Your task to perform on an android device: Open calendar and show me the third week of next month Image 0: 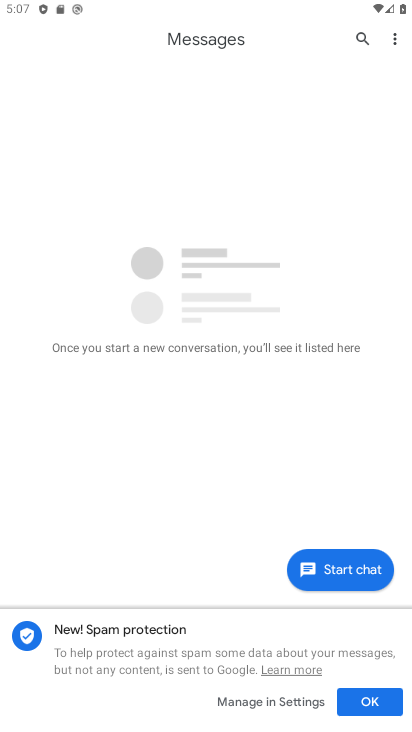
Step 0: press home button
Your task to perform on an android device: Open calendar and show me the third week of next month Image 1: 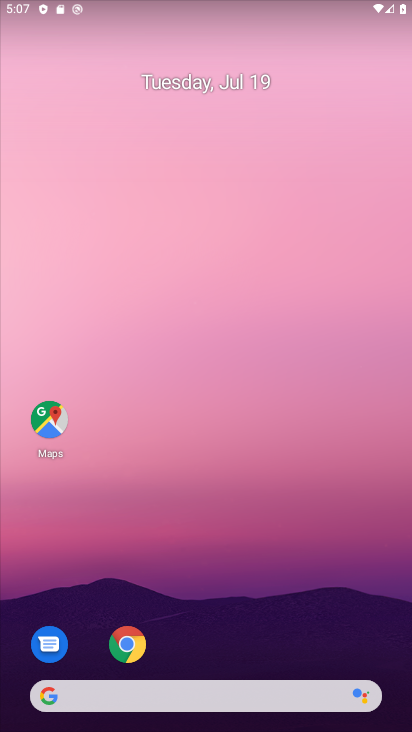
Step 1: drag from (308, 483) to (330, 279)
Your task to perform on an android device: Open calendar and show me the third week of next month Image 2: 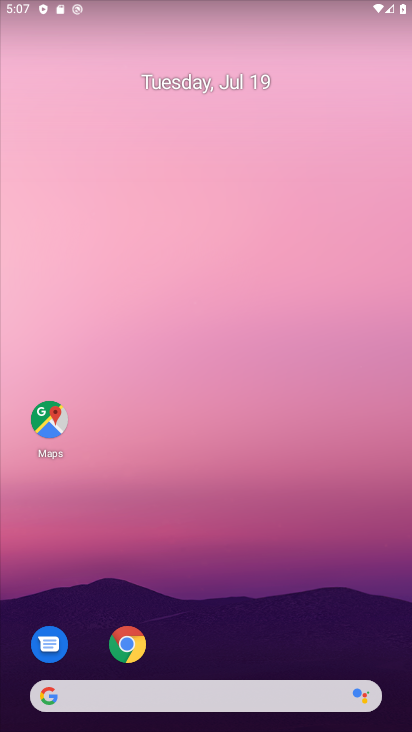
Step 2: drag from (324, 542) to (278, 122)
Your task to perform on an android device: Open calendar and show me the third week of next month Image 3: 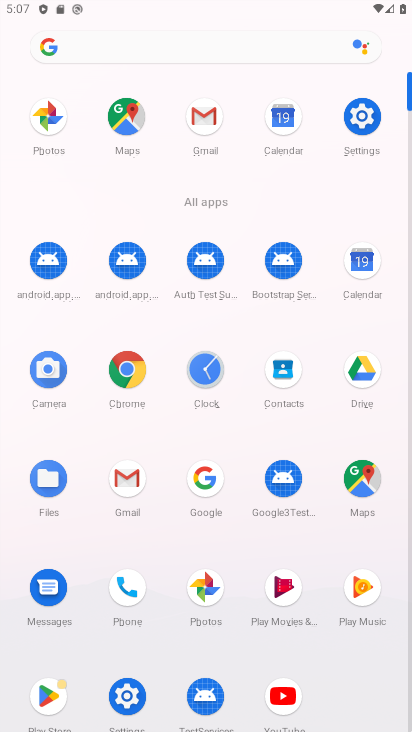
Step 3: click (356, 269)
Your task to perform on an android device: Open calendar and show me the third week of next month Image 4: 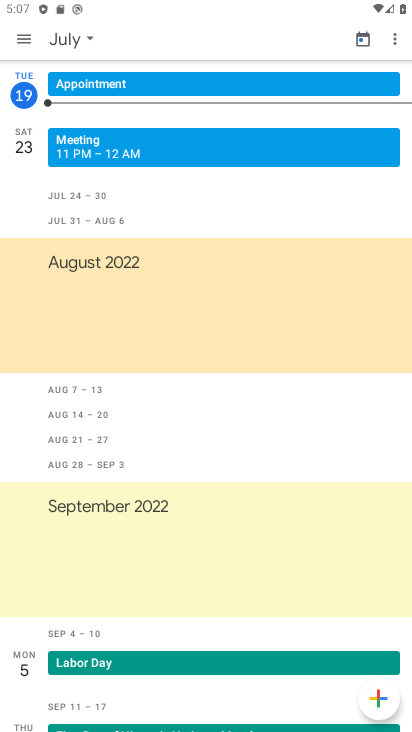
Step 4: task complete